Your task to perform on an android device: Search for Mexican restaurants on Maps Image 0: 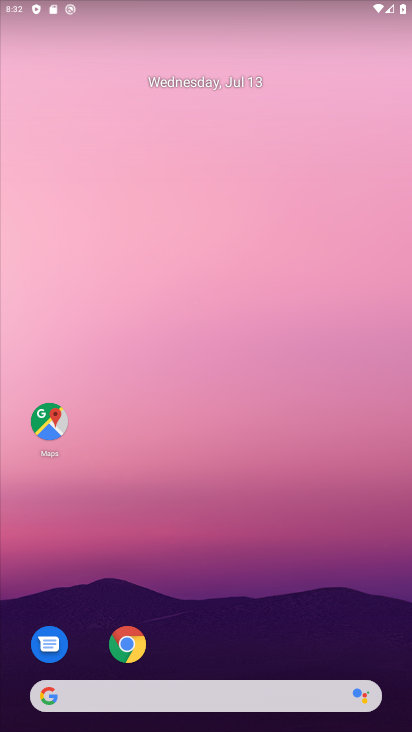
Step 0: drag from (218, 730) to (216, 132)
Your task to perform on an android device: Search for Mexican restaurants on Maps Image 1: 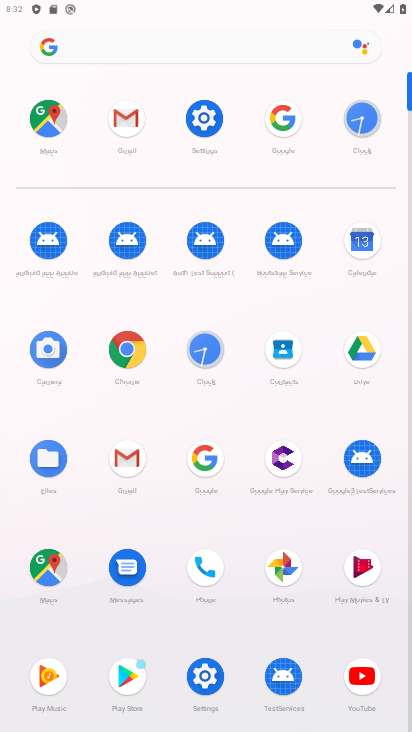
Step 1: click (46, 568)
Your task to perform on an android device: Search for Mexican restaurants on Maps Image 2: 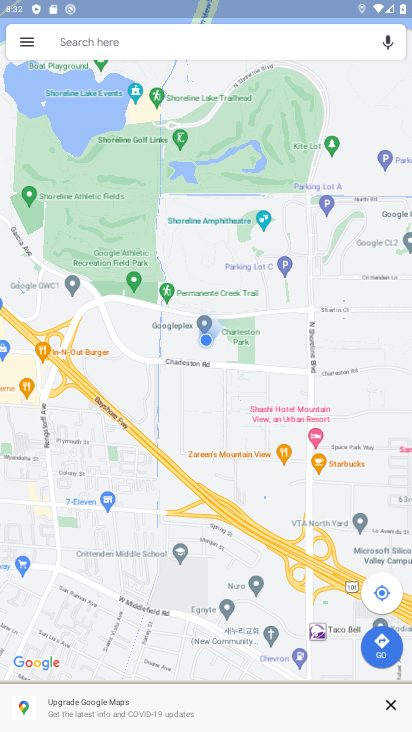
Step 2: click (187, 45)
Your task to perform on an android device: Search for Mexican restaurants on Maps Image 3: 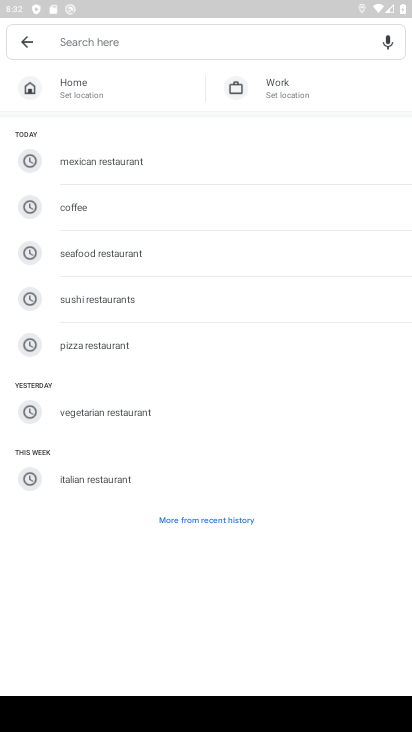
Step 3: type "Mexican restaurants"
Your task to perform on an android device: Search for Mexican restaurants on Maps Image 4: 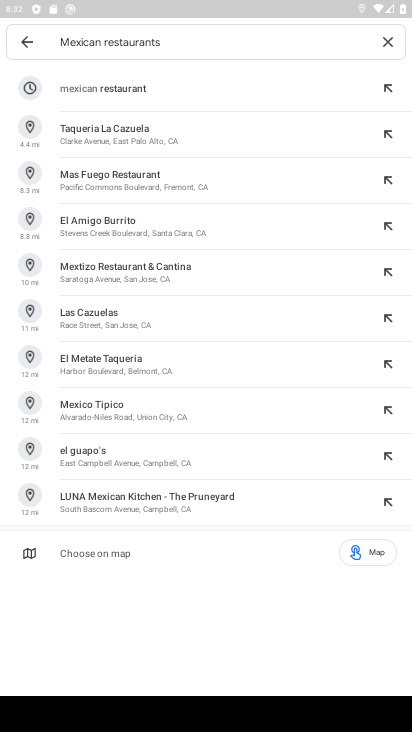
Step 4: click (100, 90)
Your task to perform on an android device: Search for Mexican restaurants on Maps Image 5: 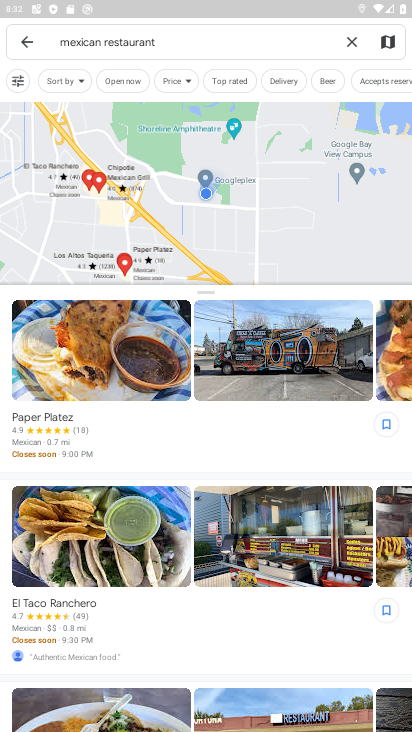
Step 5: task complete